Your task to perform on an android device: Go to privacy settings Image 0: 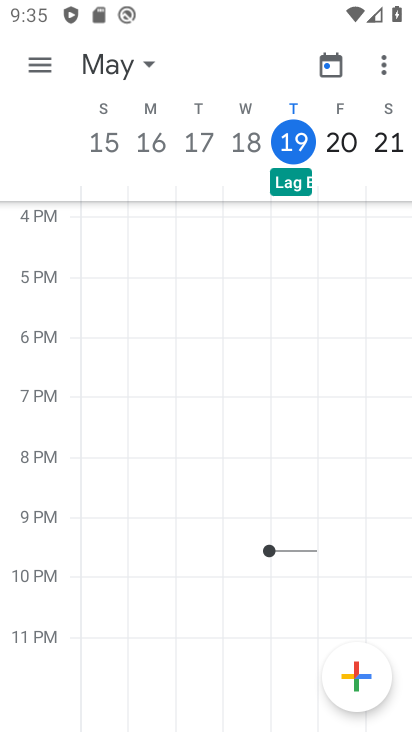
Step 0: press home button
Your task to perform on an android device: Go to privacy settings Image 1: 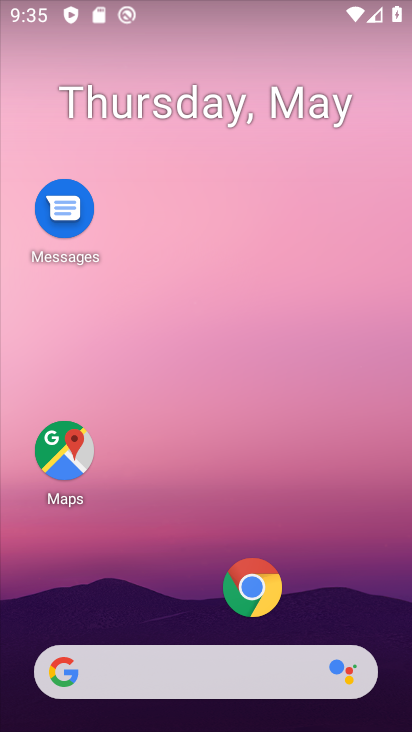
Step 1: drag from (215, 652) to (108, 8)
Your task to perform on an android device: Go to privacy settings Image 2: 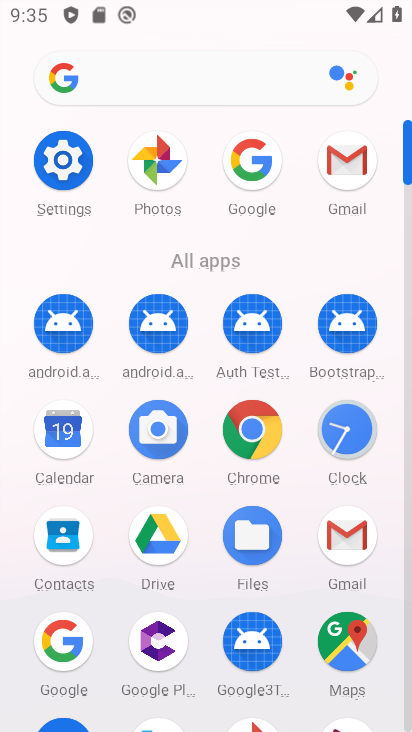
Step 2: click (45, 166)
Your task to perform on an android device: Go to privacy settings Image 3: 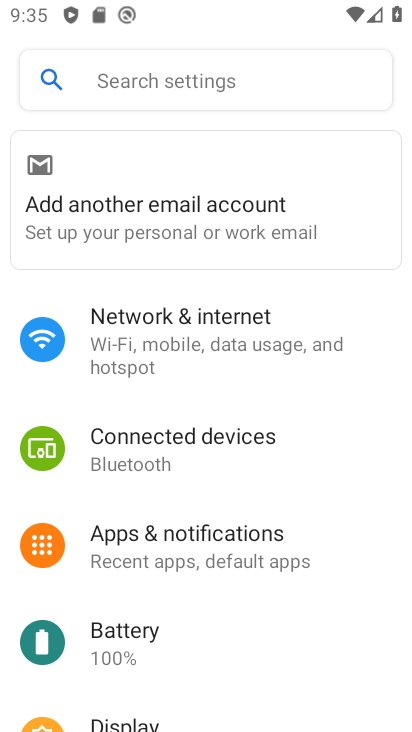
Step 3: drag from (184, 618) to (130, 254)
Your task to perform on an android device: Go to privacy settings Image 4: 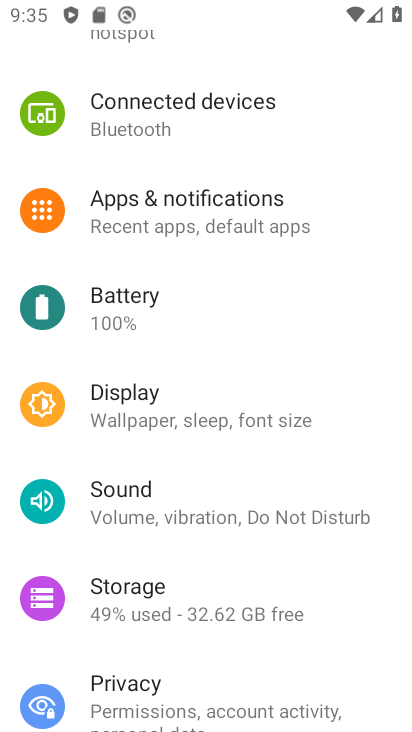
Step 4: click (152, 686)
Your task to perform on an android device: Go to privacy settings Image 5: 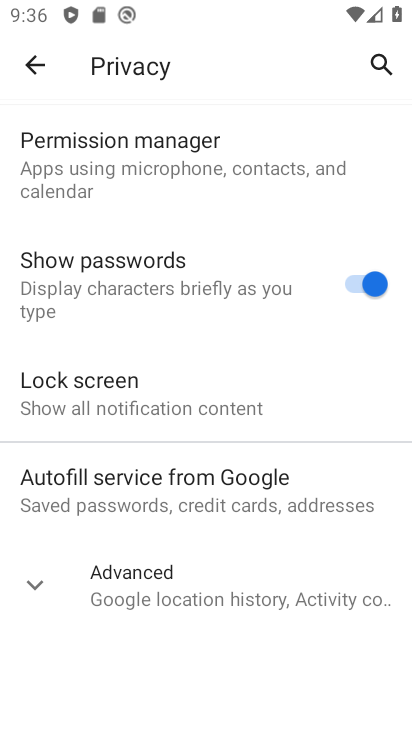
Step 5: click (148, 561)
Your task to perform on an android device: Go to privacy settings Image 6: 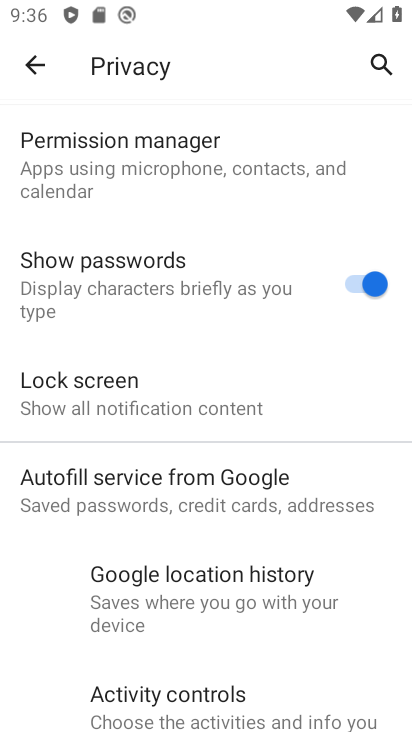
Step 6: task complete